Your task to perform on an android device: Open Google Image 0: 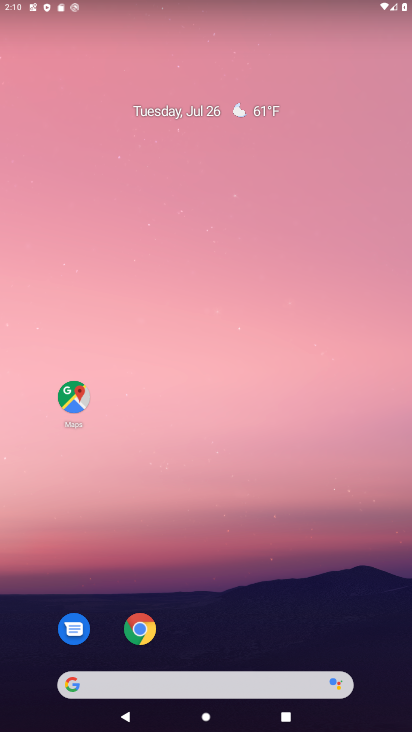
Step 0: click (76, 685)
Your task to perform on an android device: Open Google Image 1: 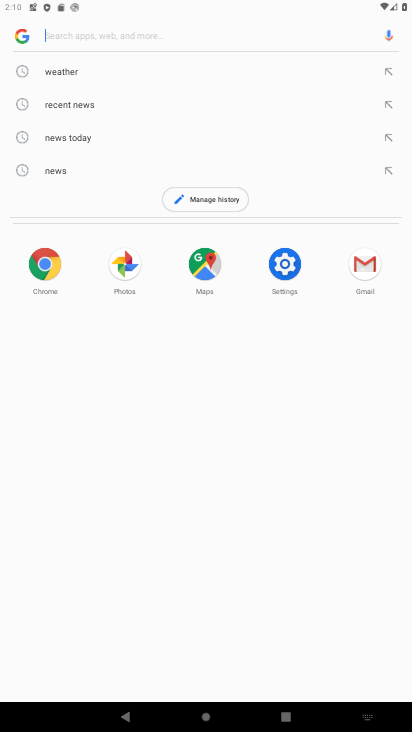
Step 1: click (20, 36)
Your task to perform on an android device: Open Google Image 2: 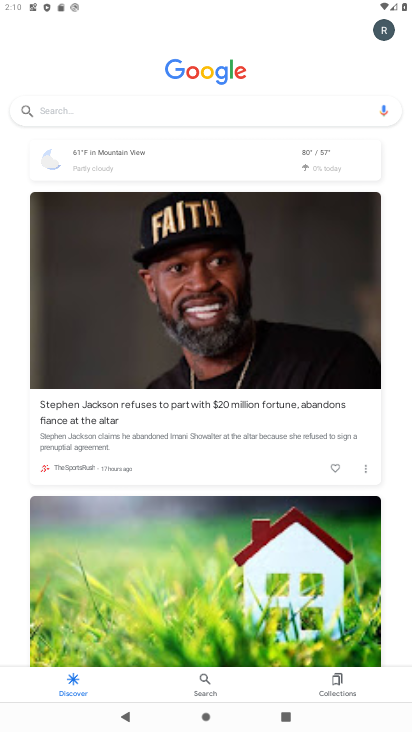
Step 2: task complete